Your task to perform on an android device: turn on priority inbox in the gmail app Image 0: 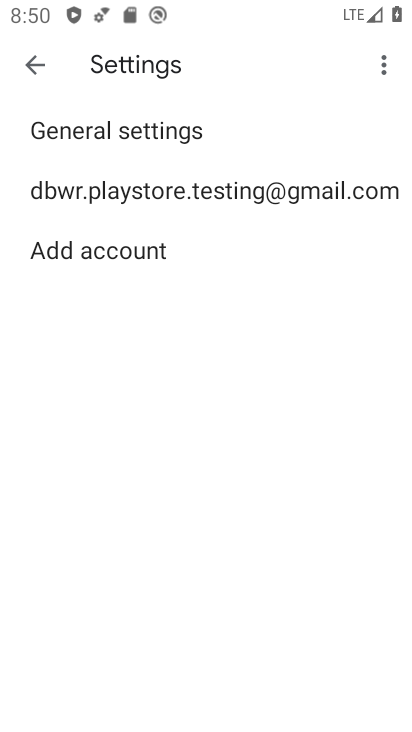
Step 0: click (77, 186)
Your task to perform on an android device: turn on priority inbox in the gmail app Image 1: 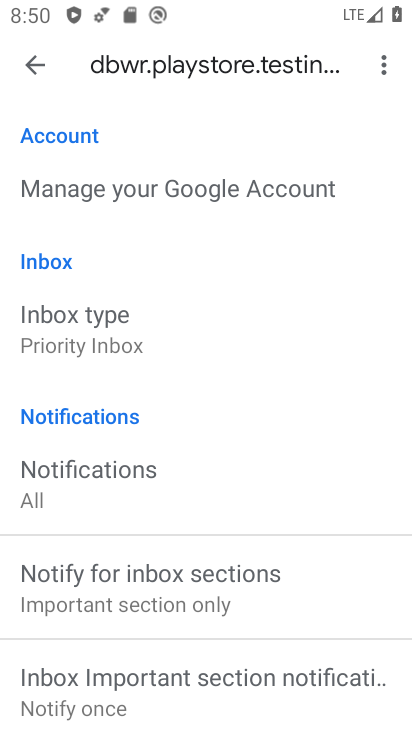
Step 1: click (93, 357)
Your task to perform on an android device: turn on priority inbox in the gmail app Image 2: 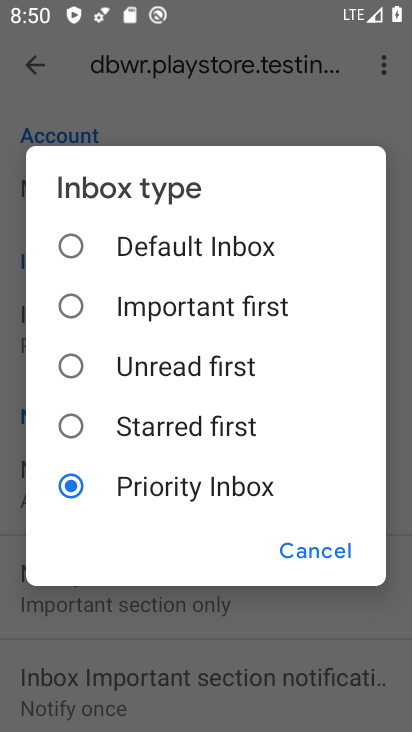
Step 2: task complete